Your task to perform on an android device: open device folders in google photos Image 0: 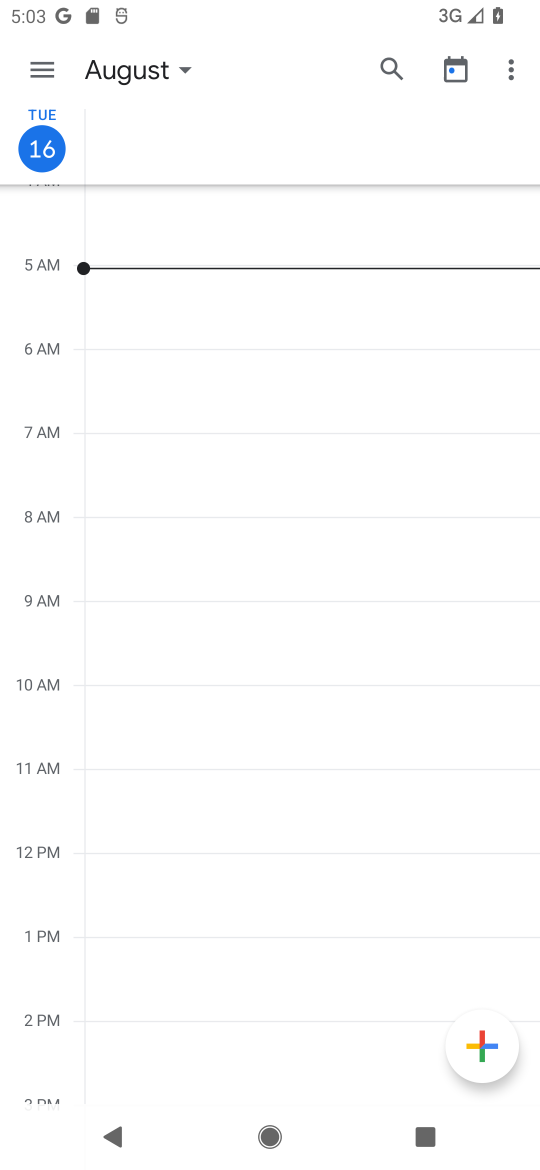
Step 0: press back button
Your task to perform on an android device: open device folders in google photos Image 1: 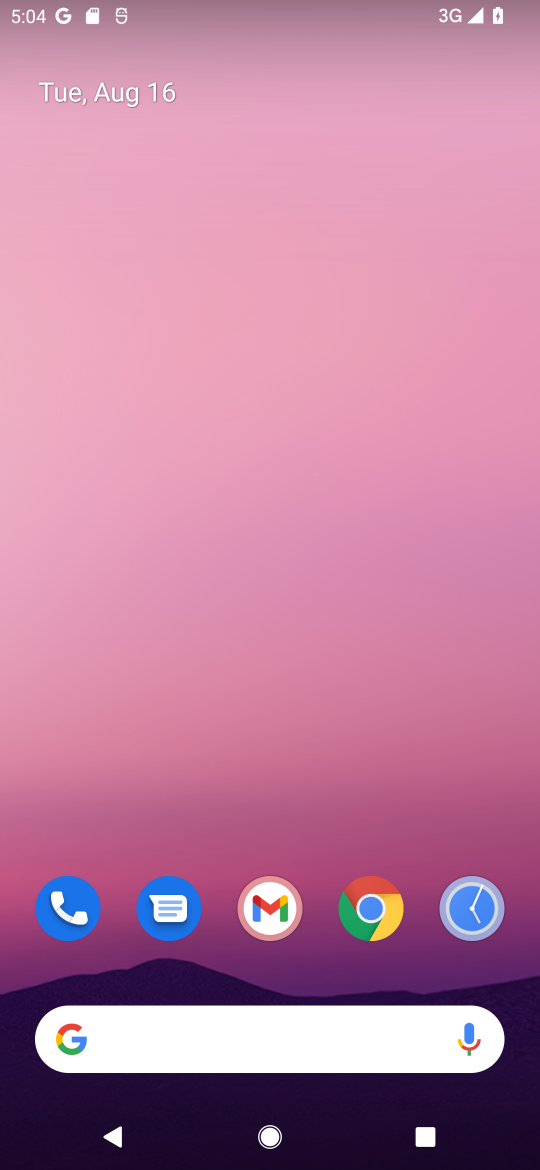
Step 1: drag from (250, 978) to (393, 93)
Your task to perform on an android device: open device folders in google photos Image 2: 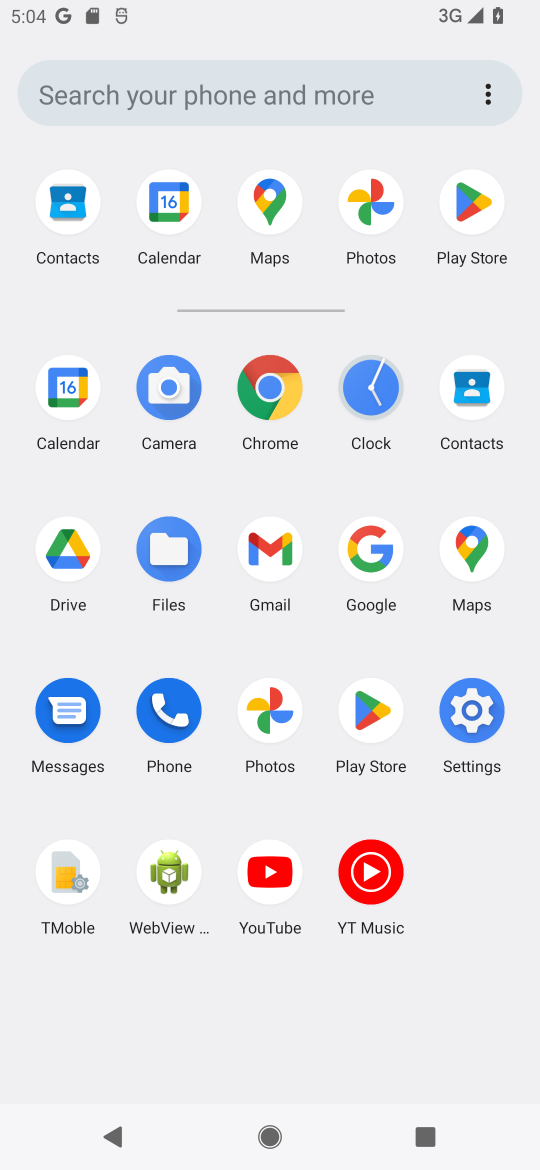
Step 2: click (368, 199)
Your task to perform on an android device: open device folders in google photos Image 3: 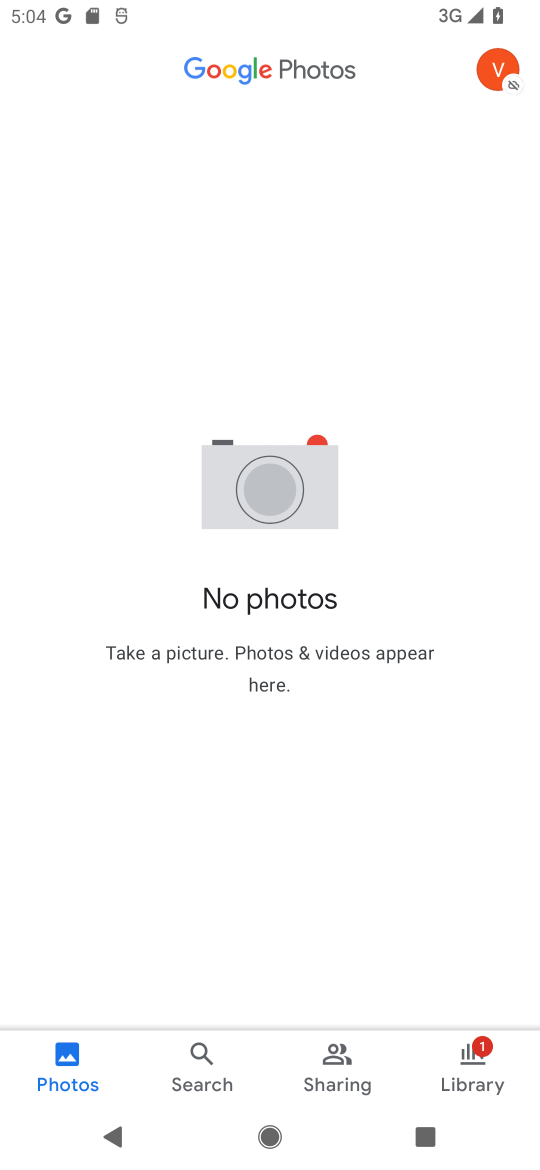
Step 3: click (507, 45)
Your task to perform on an android device: open device folders in google photos Image 4: 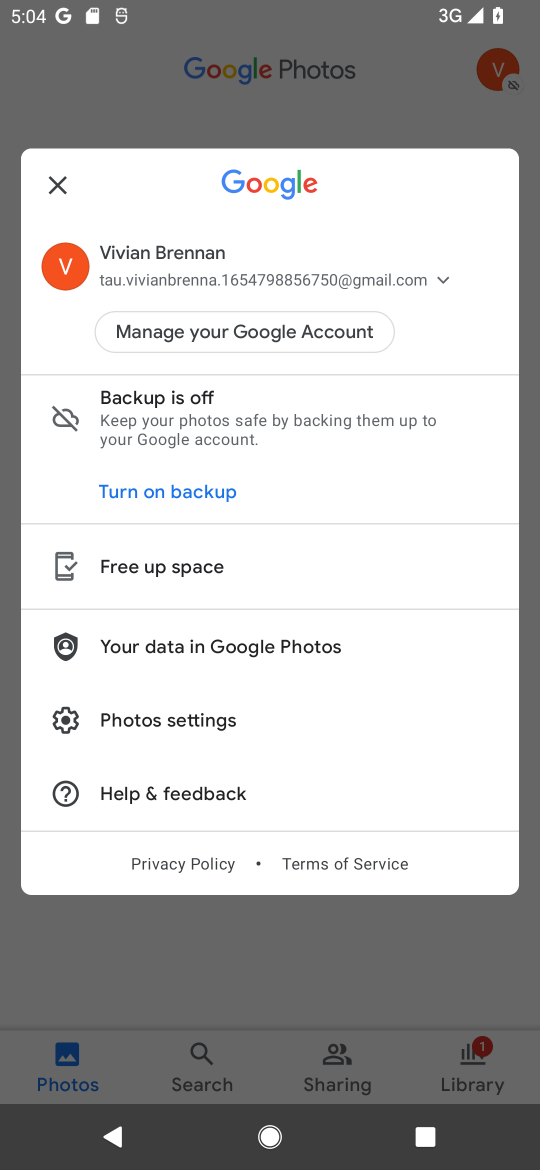
Step 4: task complete